Your task to perform on an android device: Clear the cart on target.com. Image 0: 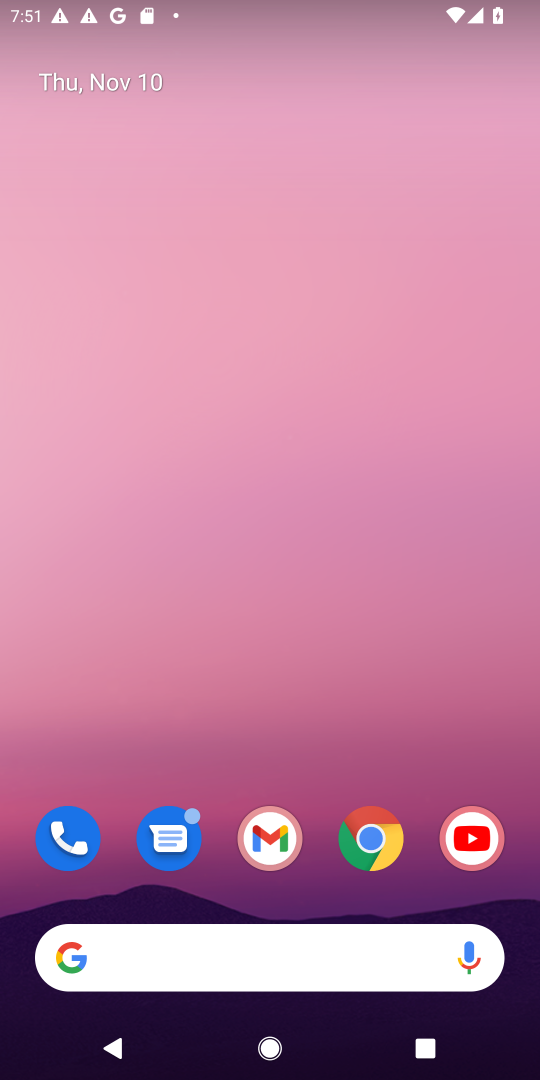
Step 0: drag from (324, 884) to (469, 104)
Your task to perform on an android device: Clear the cart on target.com. Image 1: 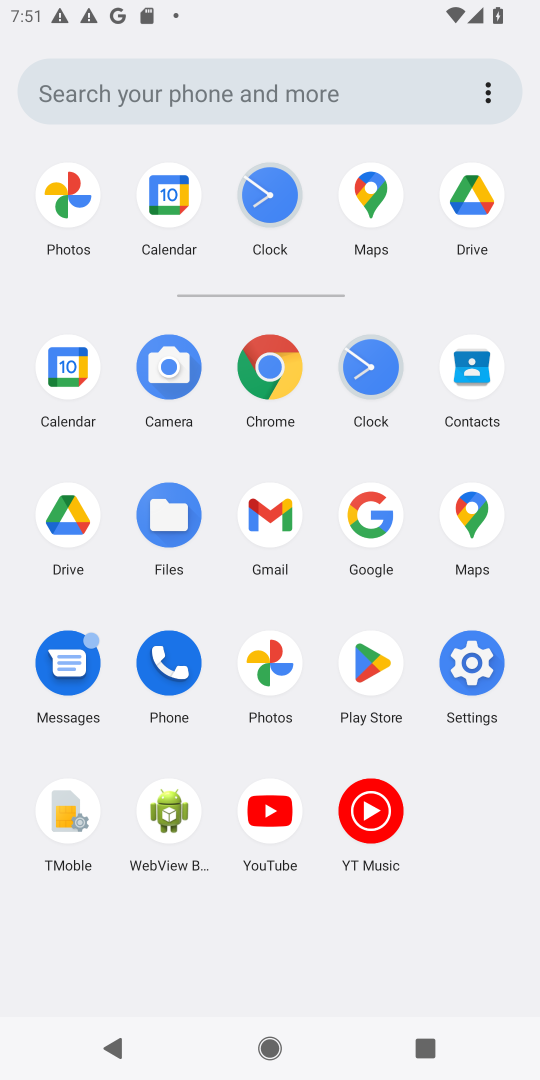
Step 1: click (271, 362)
Your task to perform on an android device: Clear the cart on target.com. Image 2: 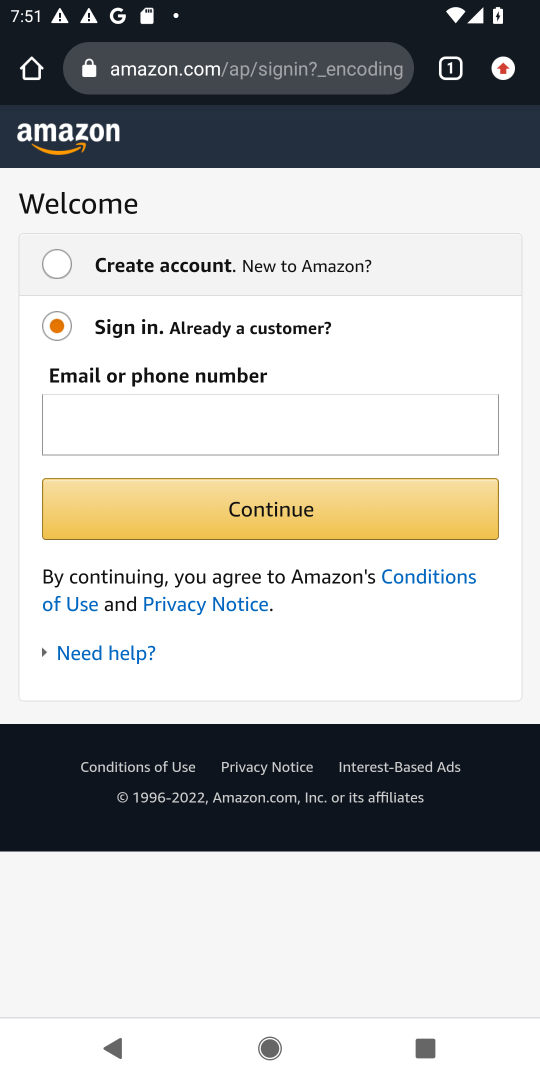
Step 2: click (330, 70)
Your task to perform on an android device: Clear the cart on target.com. Image 3: 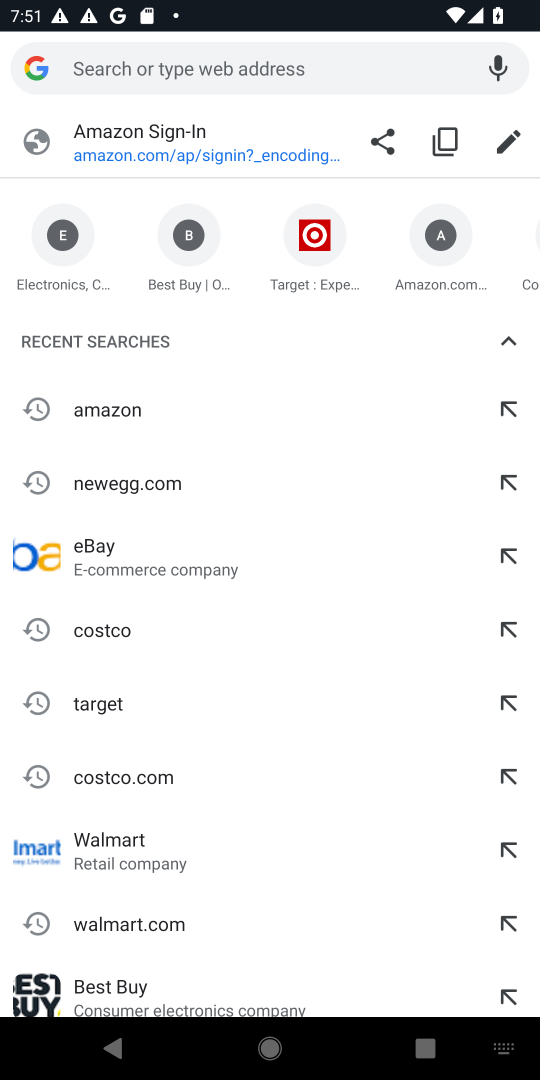
Step 3: type "target.com"
Your task to perform on an android device: Clear the cart on target.com. Image 4: 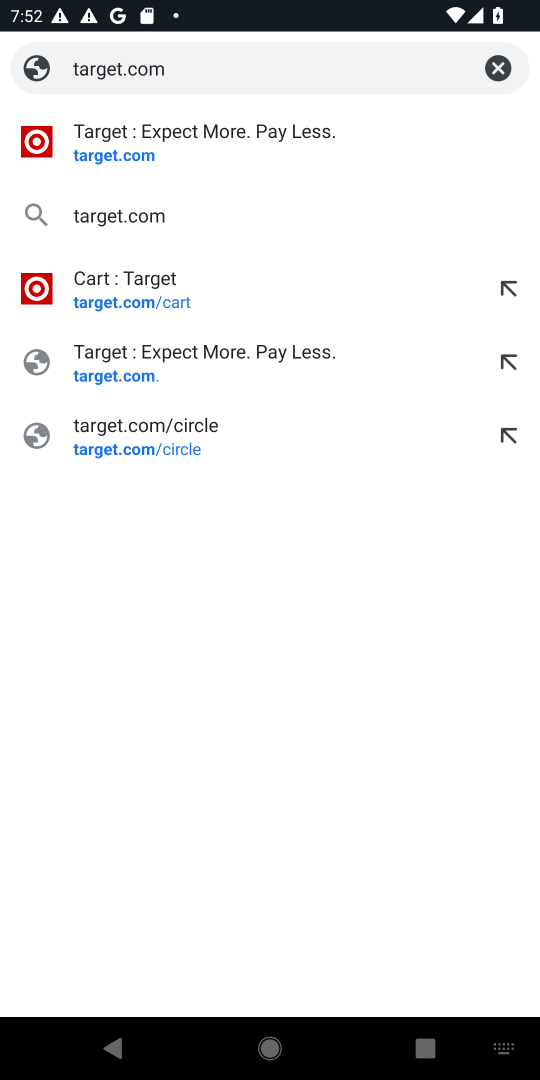
Step 4: press enter
Your task to perform on an android device: Clear the cart on target.com. Image 5: 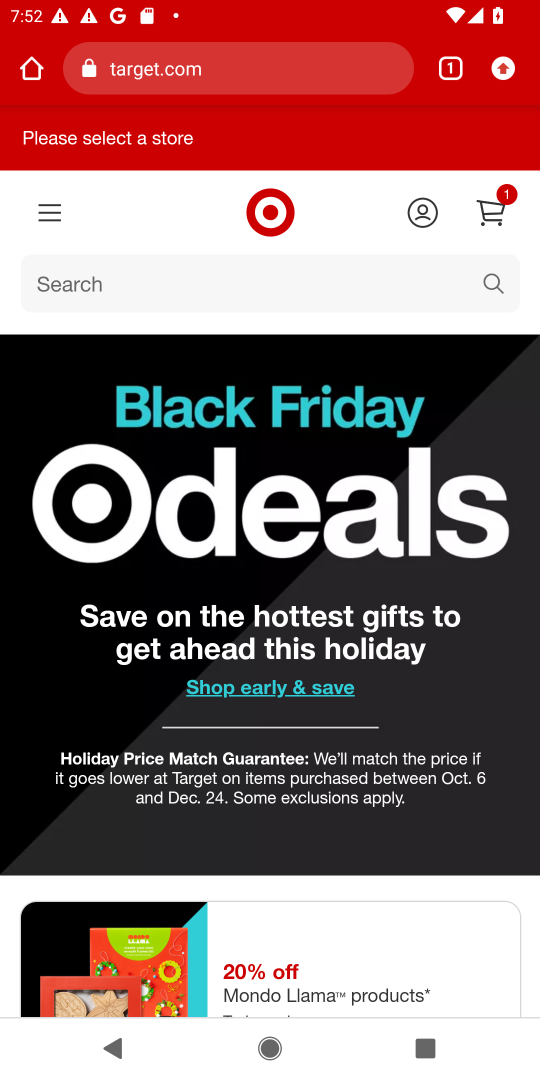
Step 5: drag from (390, 1003) to (331, 271)
Your task to perform on an android device: Clear the cart on target.com. Image 6: 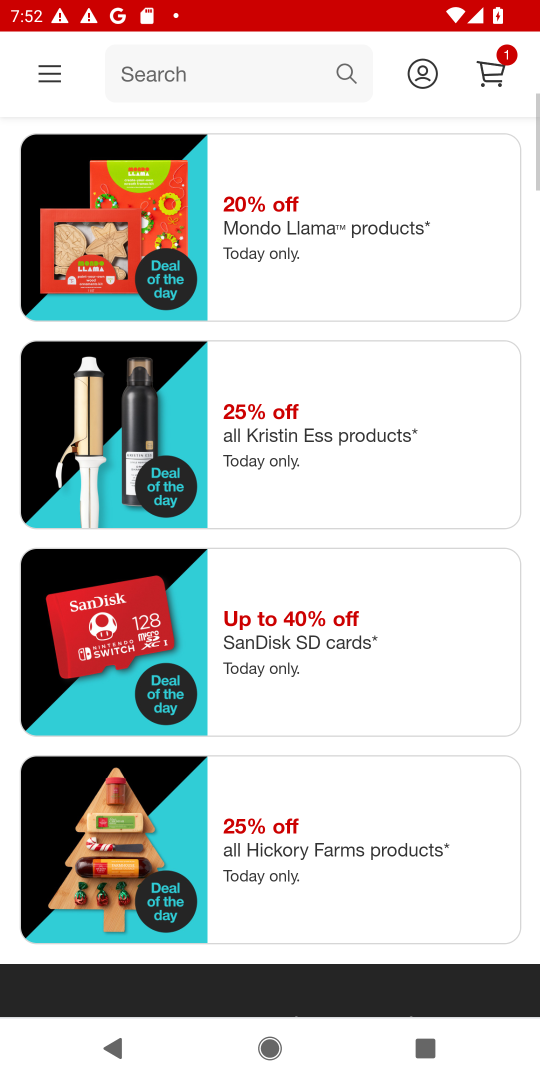
Step 6: click (503, 61)
Your task to perform on an android device: Clear the cart on target.com. Image 7: 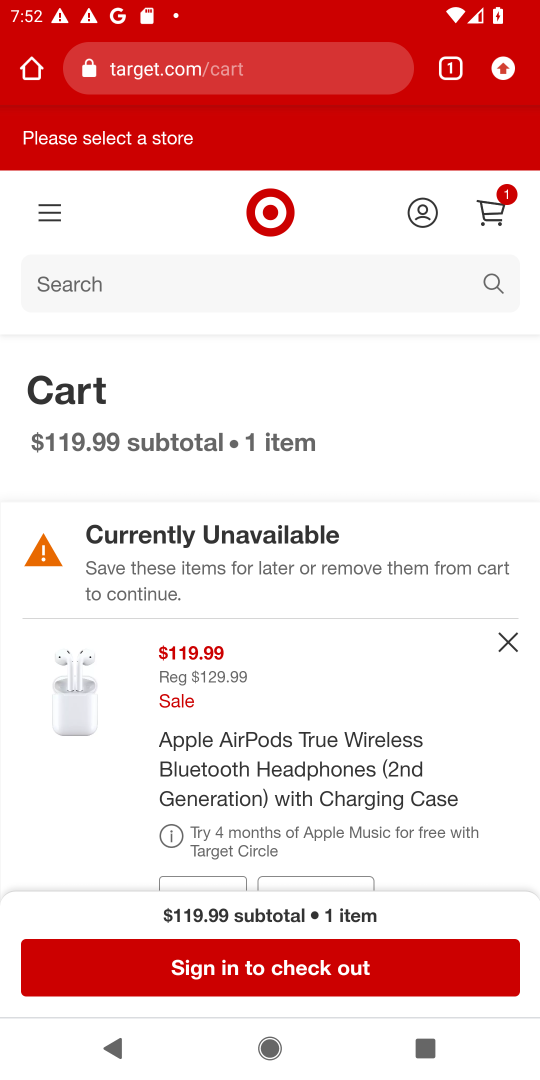
Step 7: click (504, 638)
Your task to perform on an android device: Clear the cart on target.com. Image 8: 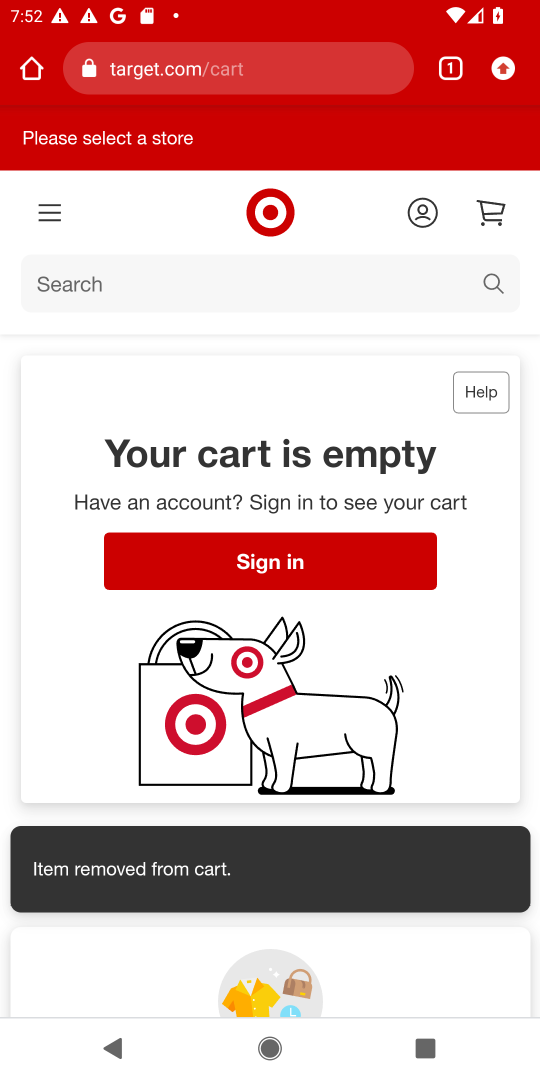
Step 8: task complete